Your task to perform on an android device: visit the assistant section in the google photos Image 0: 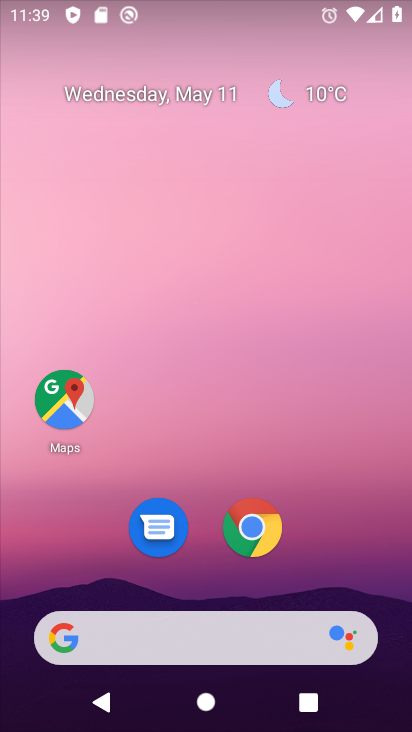
Step 0: drag from (204, 572) to (218, 0)
Your task to perform on an android device: visit the assistant section in the google photos Image 1: 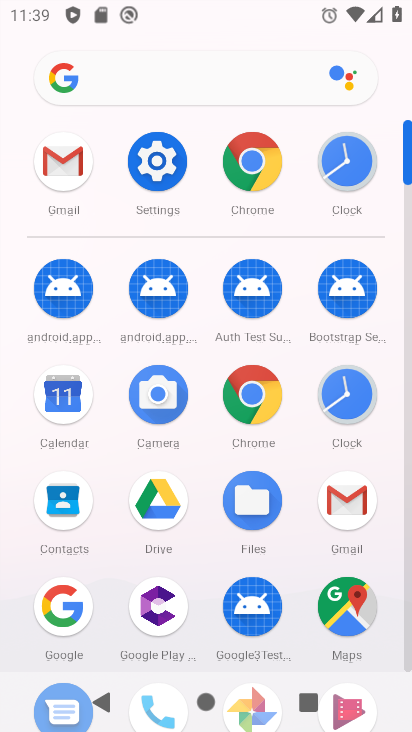
Step 1: press home button
Your task to perform on an android device: visit the assistant section in the google photos Image 2: 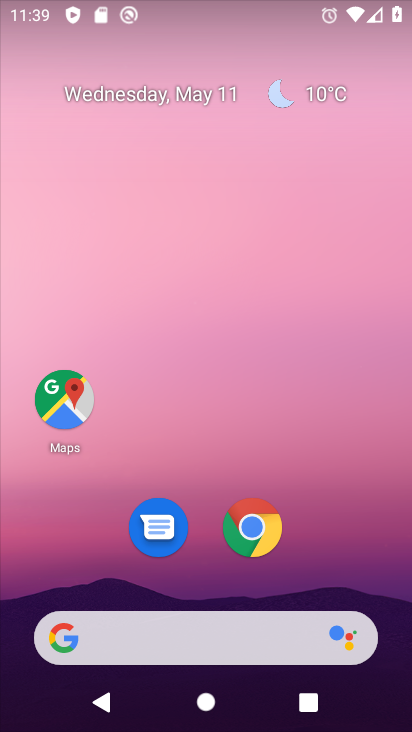
Step 2: drag from (210, 571) to (216, 27)
Your task to perform on an android device: visit the assistant section in the google photos Image 3: 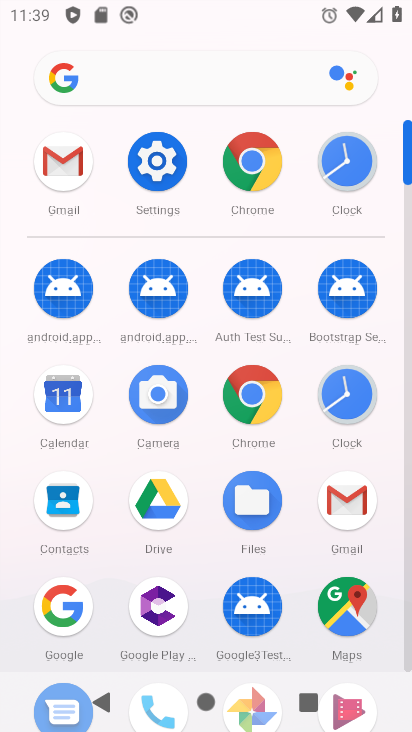
Step 3: drag from (255, 600) to (307, 119)
Your task to perform on an android device: visit the assistant section in the google photos Image 4: 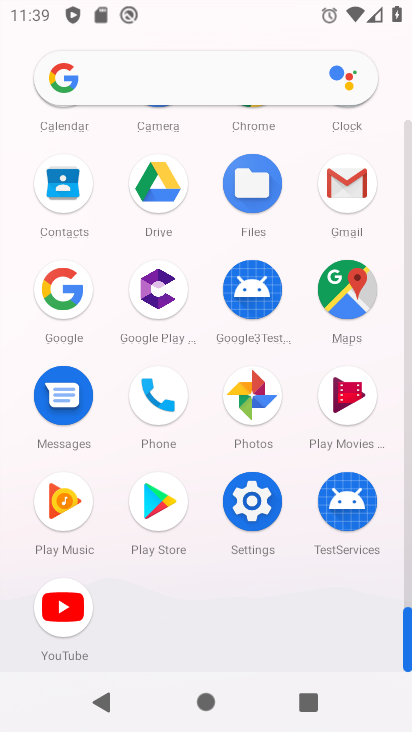
Step 4: click (251, 405)
Your task to perform on an android device: visit the assistant section in the google photos Image 5: 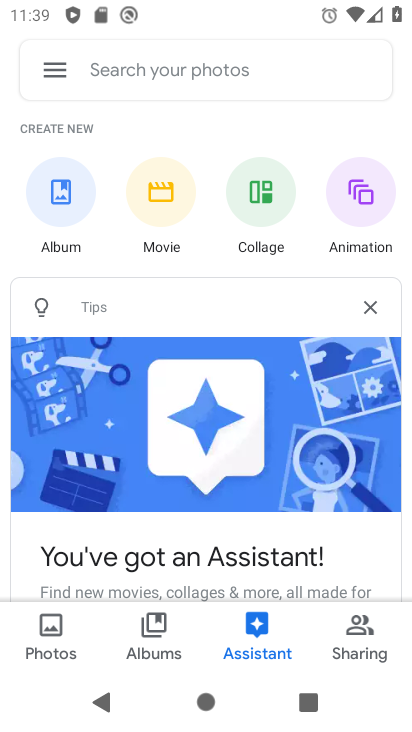
Step 5: task complete